Your task to perform on an android device: turn on notifications settings in the gmail app Image 0: 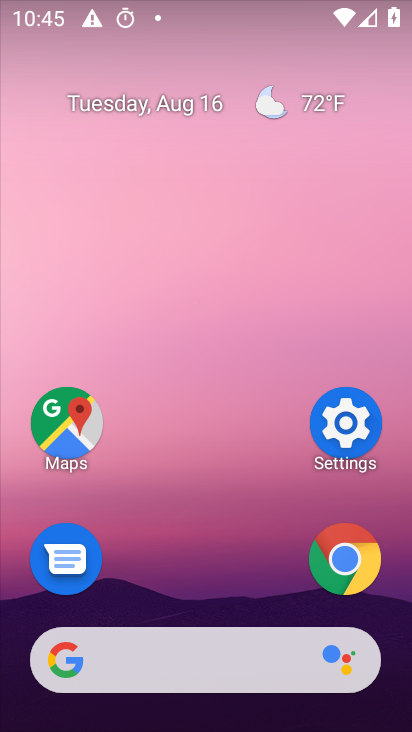
Step 0: drag from (167, 599) to (299, 43)
Your task to perform on an android device: turn on notifications settings in the gmail app Image 1: 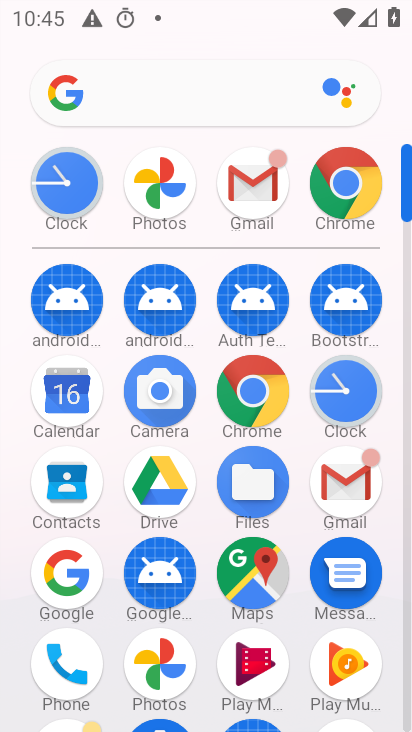
Step 1: click (248, 186)
Your task to perform on an android device: turn on notifications settings in the gmail app Image 2: 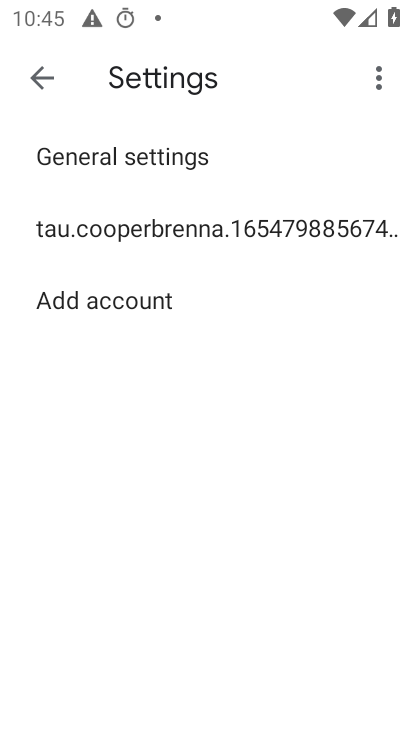
Step 2: click (232, 226)
Your task to perform on an android device: turn on notifications settings in the gmail app Image 3: 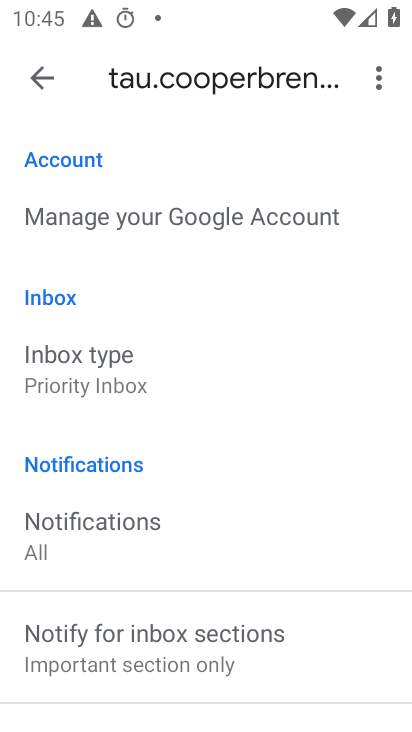
Step 3: click (91, 545)
Your task to perform on an android device: turn on notifications settings in the gmail app Image 4: 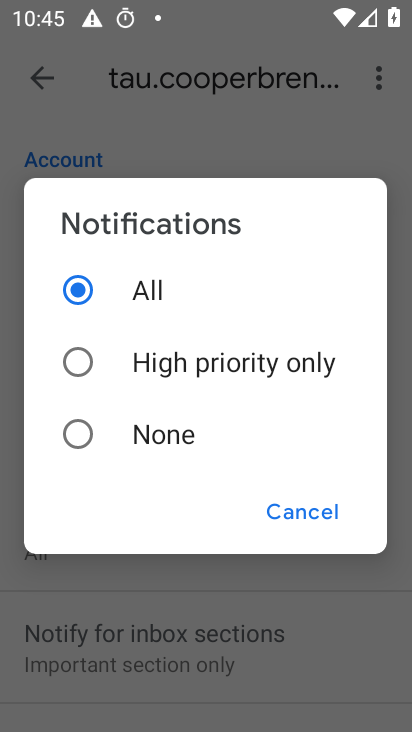
Step 4: task complete